Your task to perform on an android device: toggle airplane mode Image 0: 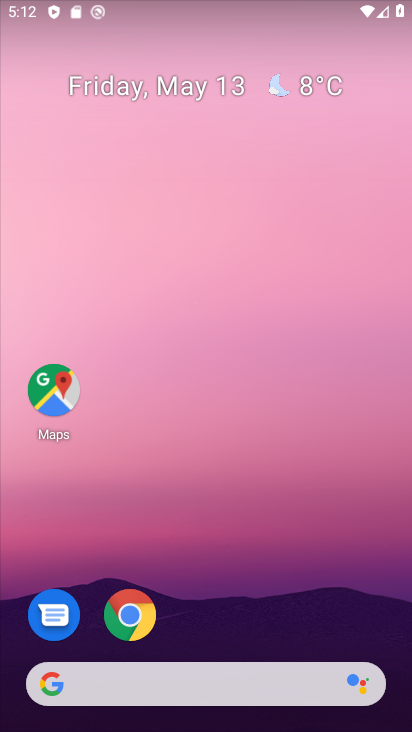
Step 0: drag from (245, 544) to (0, 64)
Your task to perform on an android device: toggle airplane mode Image 1: 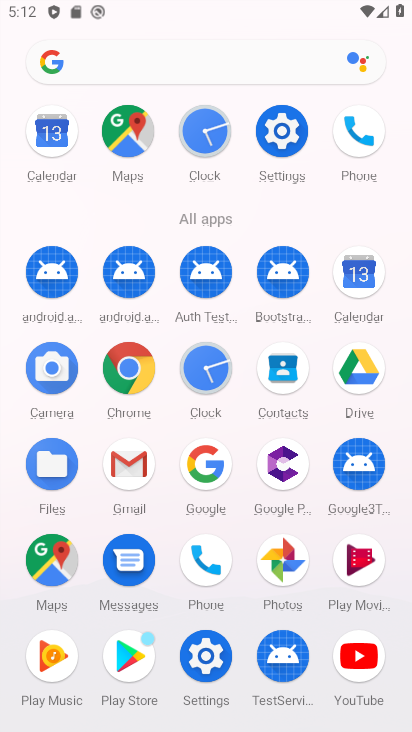
Step 1: drag from (0, 457) to (21, 189)
Your task to perform on an android device: toggle airplane mode Image 2: 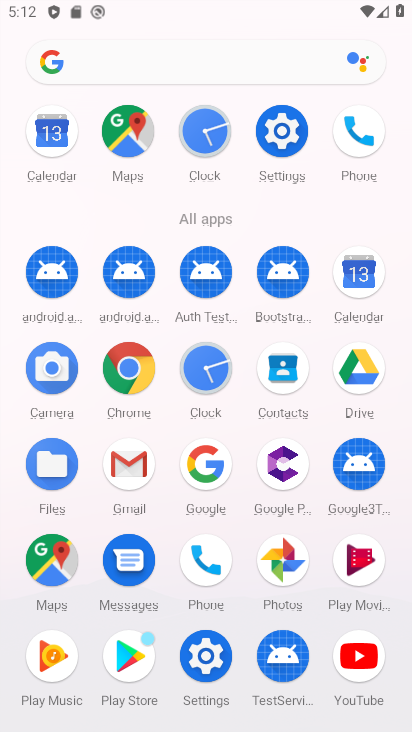
Step 2: click (206, 651)
Your task to perform on an android device: toggle airplane mode Image 3: 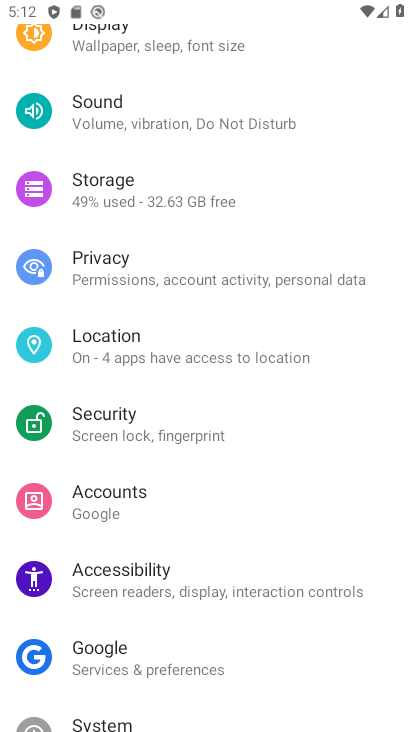
Step 3: drag from (210, 148) to (212, 586)
Your task to perform on an android device: toggle airplane mode Image 4: 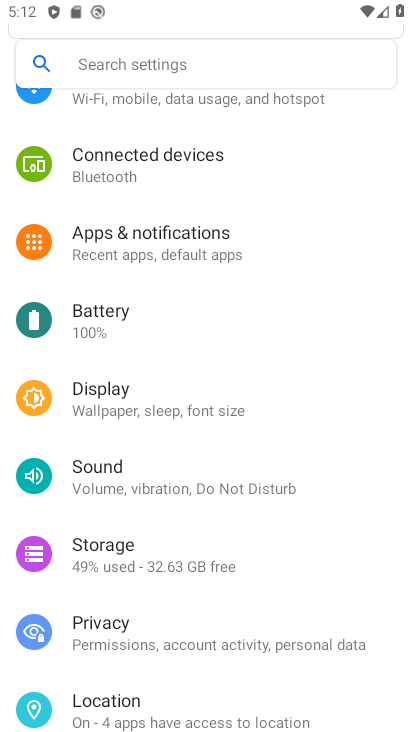
Step 4: drag from (293, 221) to (291, 598)
Your task to perform on an android device: toggle airplane mode Image 5: 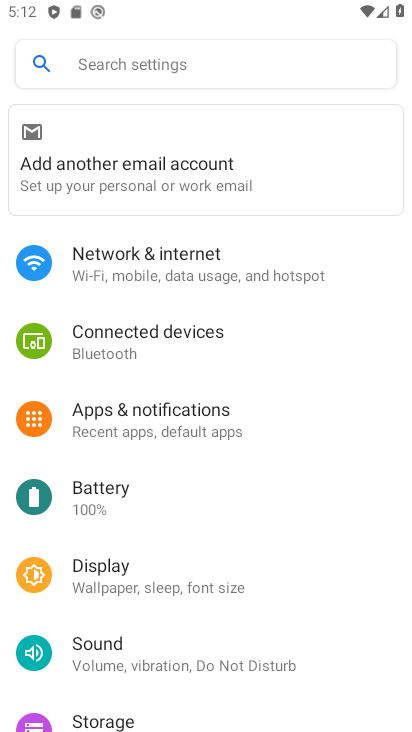
Step 5: click (185, 265)
Your task to perform on an android device: toggle airplane mode Image 6: 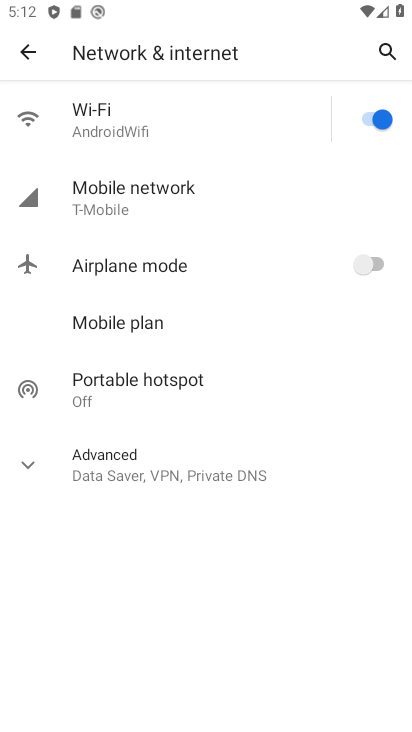
Step 6: click (374, 256)
Your task to perform on an android device: toggle airplane mode Image 7: 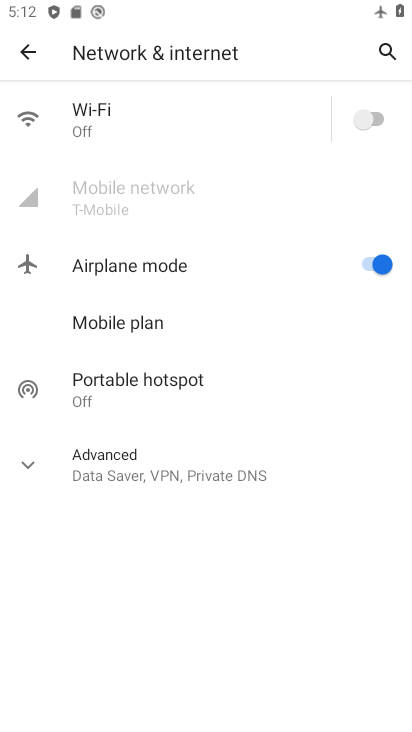
Step 7: task complete